Your task to perform on an android device: What's the weather going to be this weekend? Image 0: 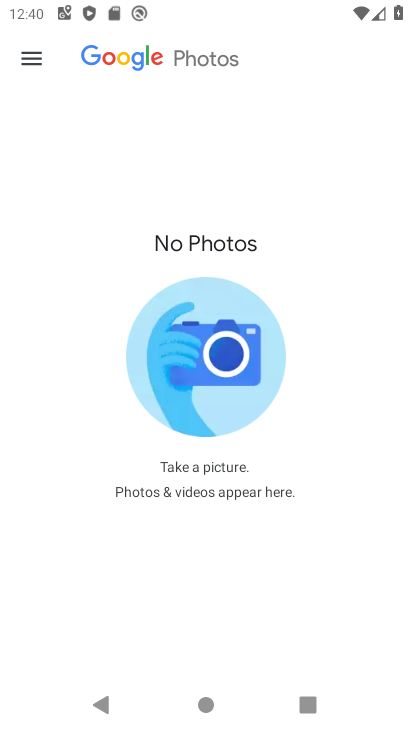
Step 0: press home button
Your task to perform on an android device: What's the weather going to be this weekend? Image 1: 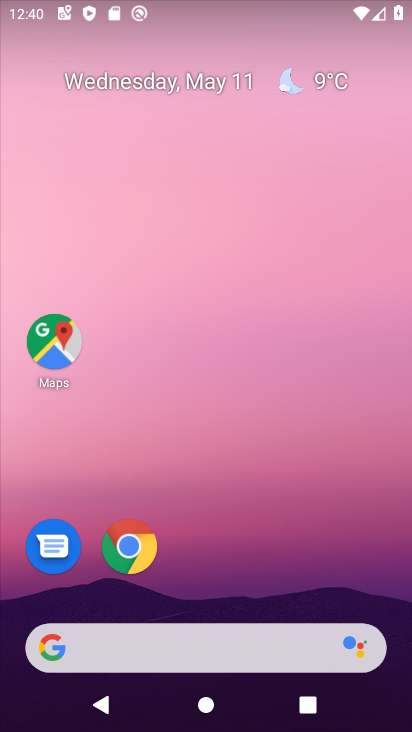
Step 1: drag from (294, 680) to (285, 126)
Your task to perform on an android device: What's the weather going to be this weekend? Image 2: 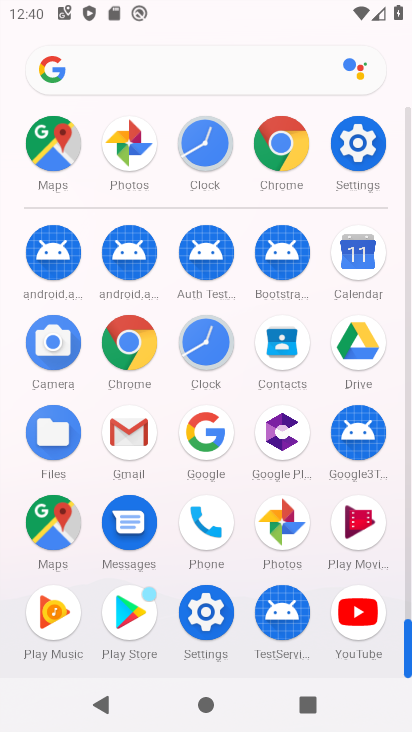
Step 2: click (114, 354)
Your task to perform on an android device: What's the weather going to be this weekend? Image 3: 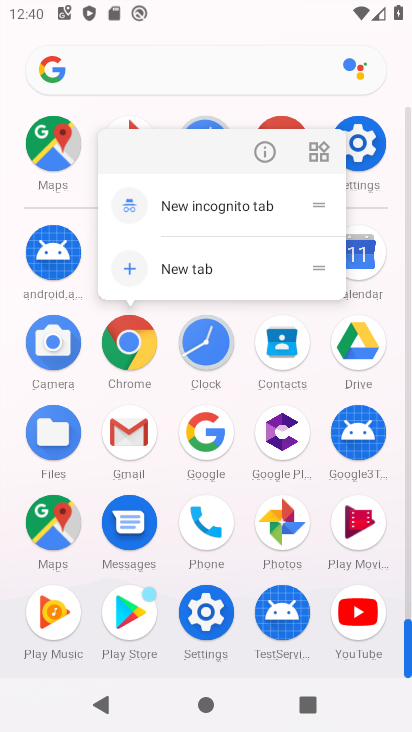
Step 3: click (134, 339)
Your task to perform on an android device: What's the weather going to be this weekend? Image 4: 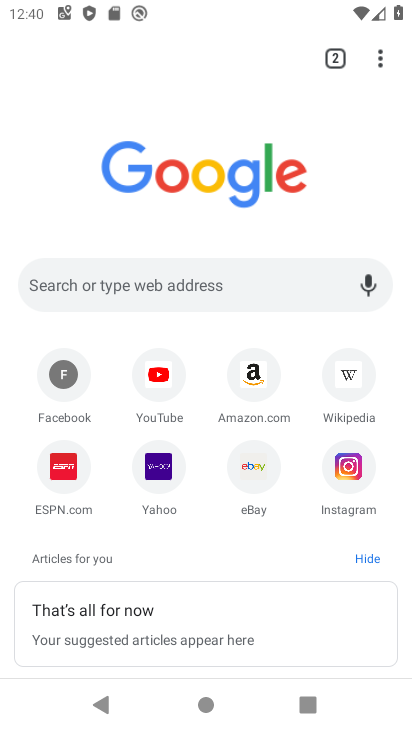
Step 4: click (169, 286)
Your task to perform on an android device: What's the weather going to be this weekend? Image 5: 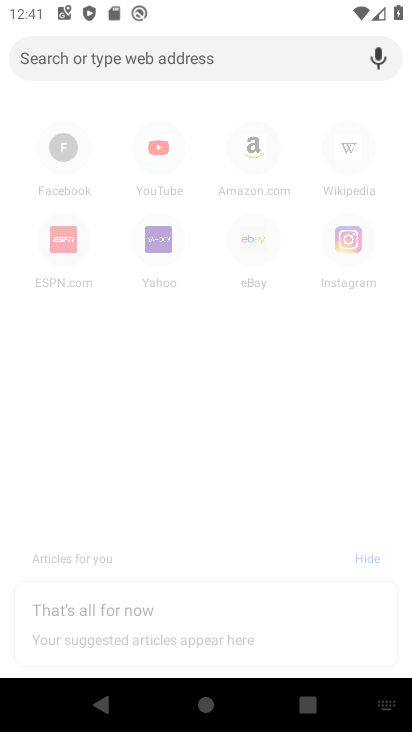
Step 5: type "weather going to be this weekend"
Your task to perform on an android device: What's the weather going to be this weekend? Image 6: 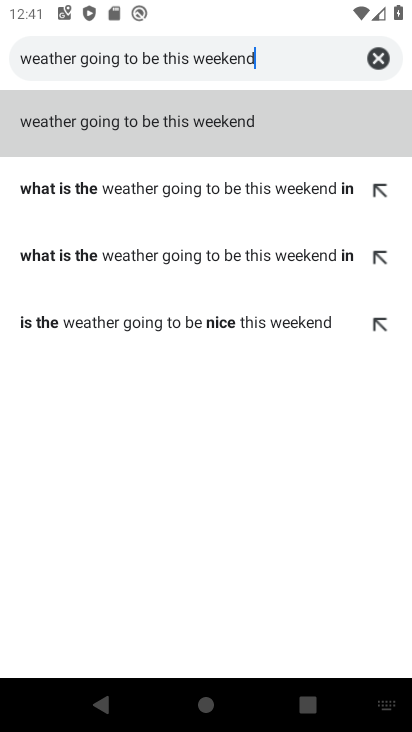
Step 6: click (242, 117)
Your task to perform on an android device: What's the weather going to be this weekend? Image 7: 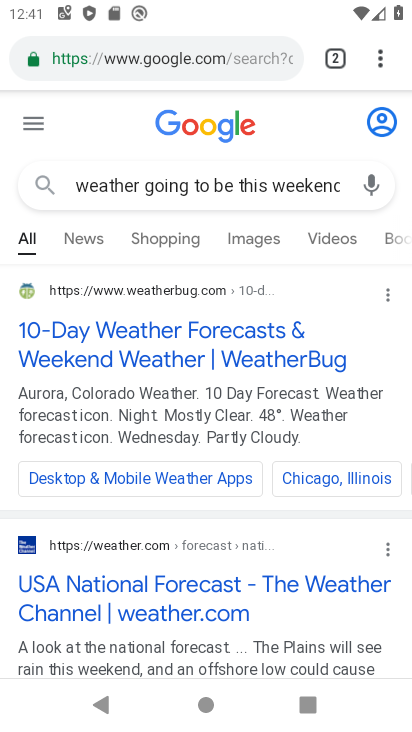
Step 7: task complete